Your task to perform on an android device: find photos in the google photos app Image 0: 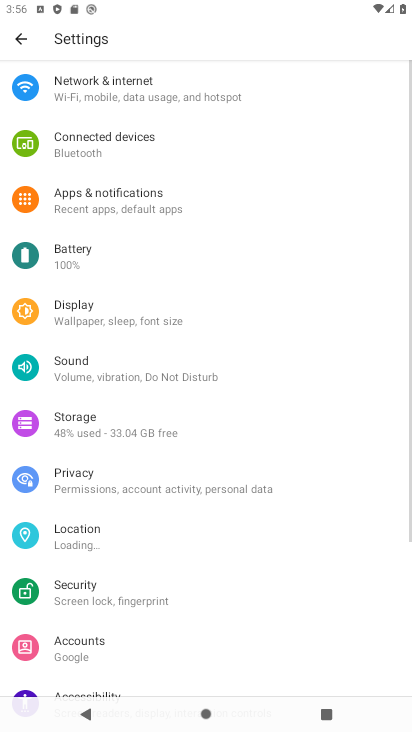
Step 0: press home button
Your task to perform on an android device: find photos in the google photos app Image 1: 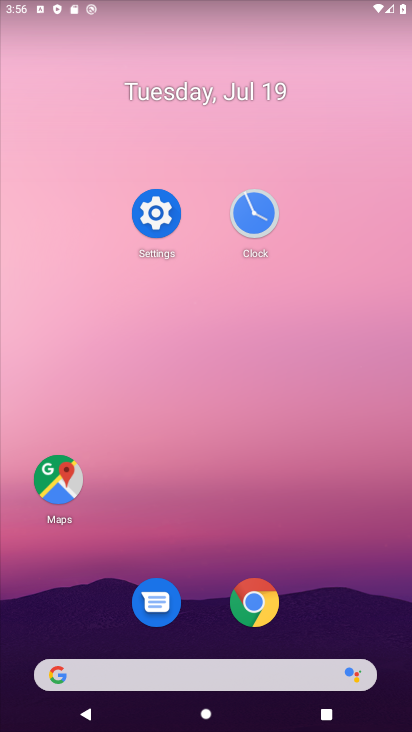
Step 1: drag from (341, 600) to (375, 203)
Your task to perform on an android device: find photos in the google photos app Image 2: 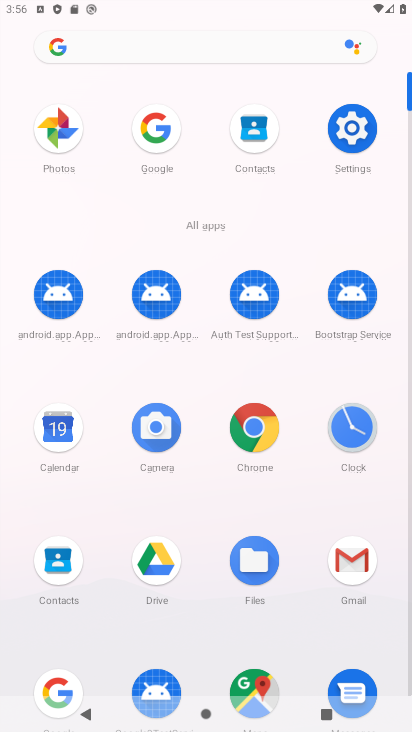
Step 2: click (48, 129)
Your task to perform on an android device: find photos in the google photos app Image 3: 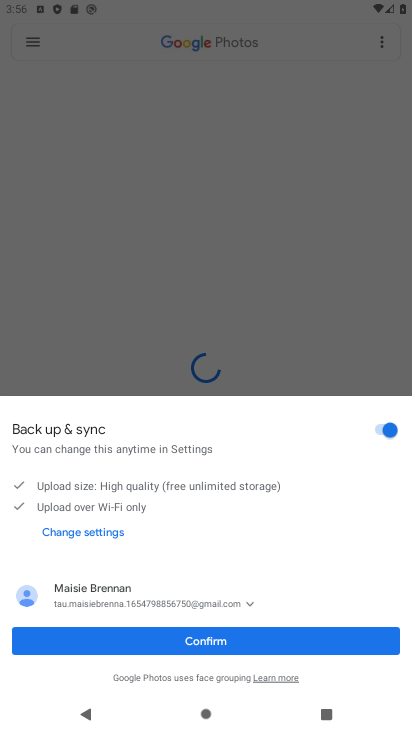
Step 3: click (188, 639)
Your task to perform on an android device: find photos in the google photos app Image 4: 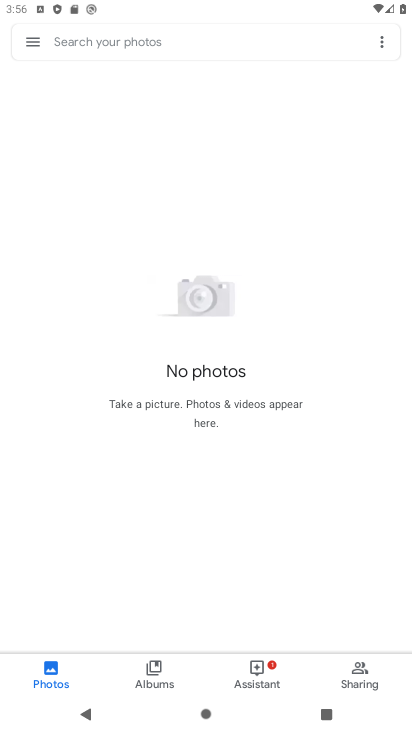
Step 4: task complete